Your task to perform on an android device: change notification settings in the gmail app Image 0: 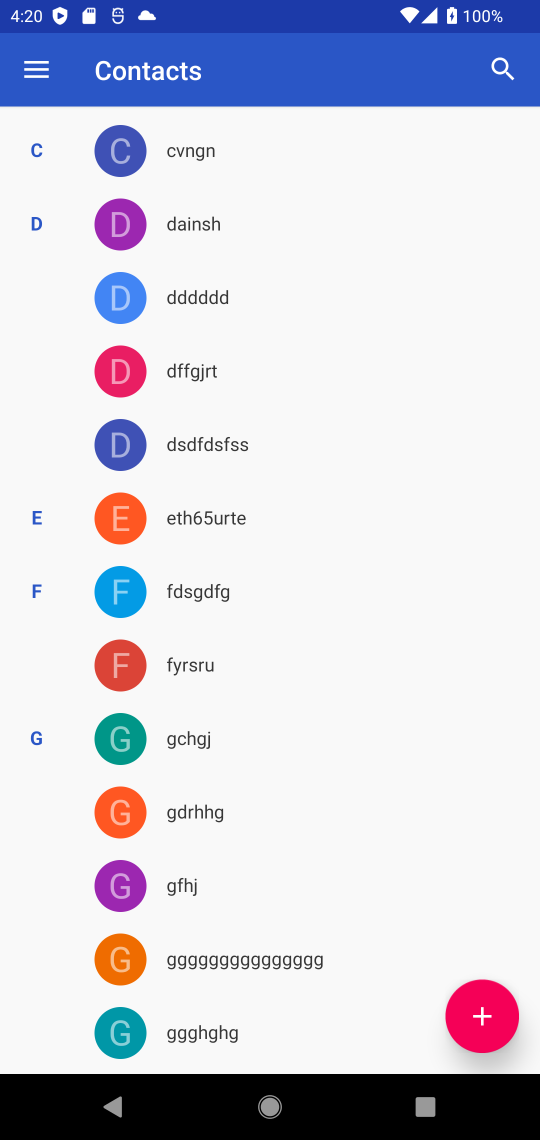
Step 0: press home button
Your task to perform on an android device: change notification settings in the gmail app Image 1: 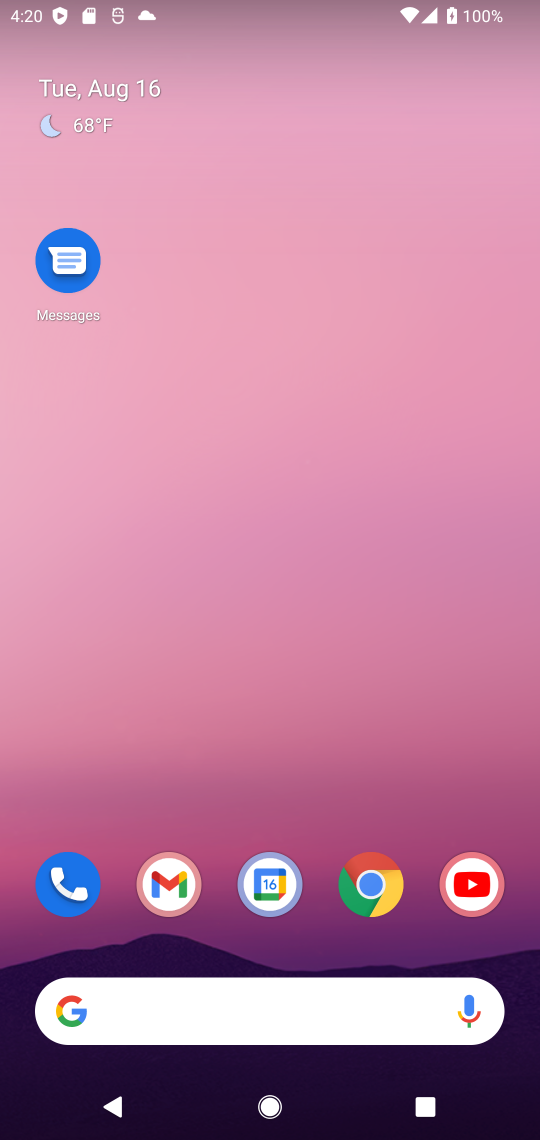
Step 1: click (156, 888)
Your task to perform on an android device: change notification settings in the gmail app Image 2: 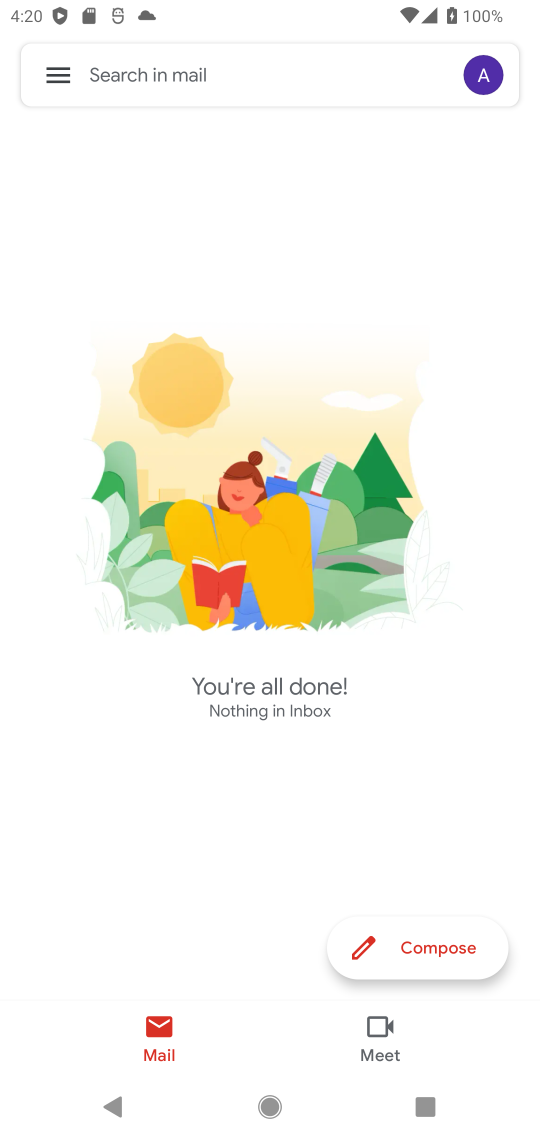
Step 2: click (43, 70)
Your task to perform on an android device: change notification settings in the gmail app Image 3: 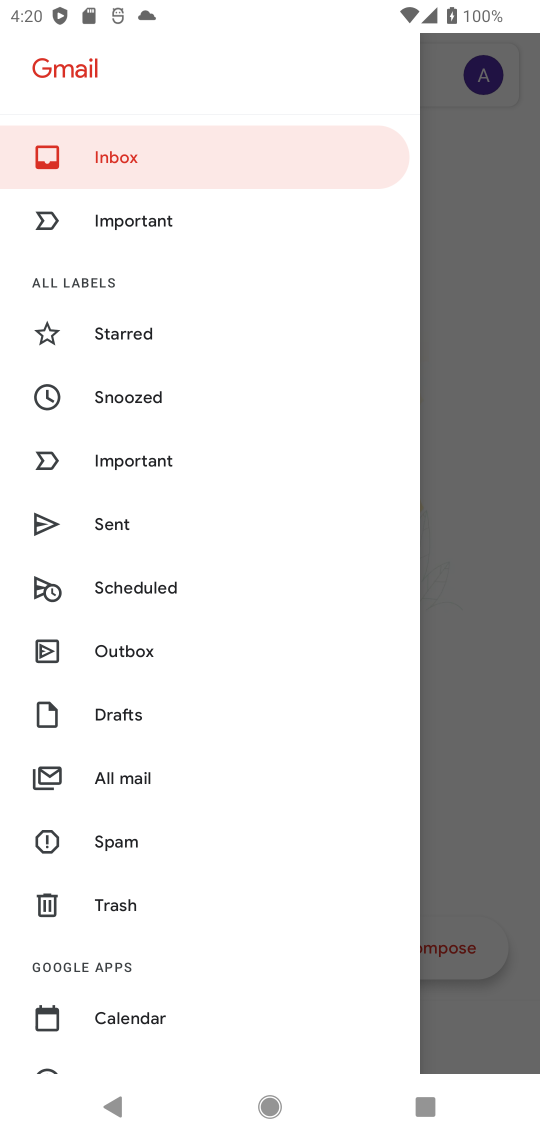
Step 3: drag from (230, 973) to (291, 544)
Your task to perform on an android device: change notification settings in the gmail app Image 4: 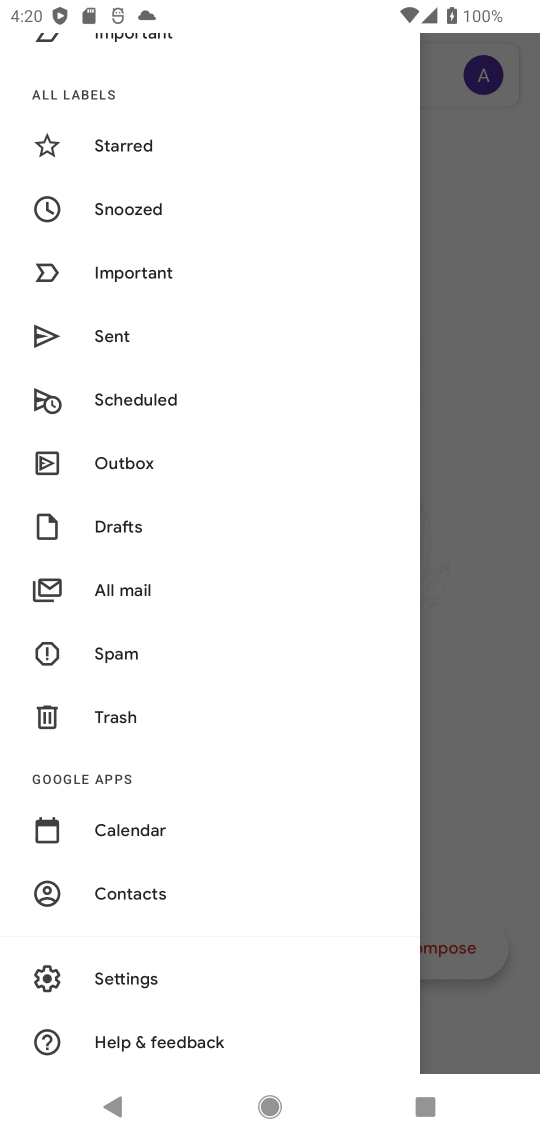
Step 4: click (123, 977)
Your task to perform on an android device: change notification settings in the gmail app Image 5: 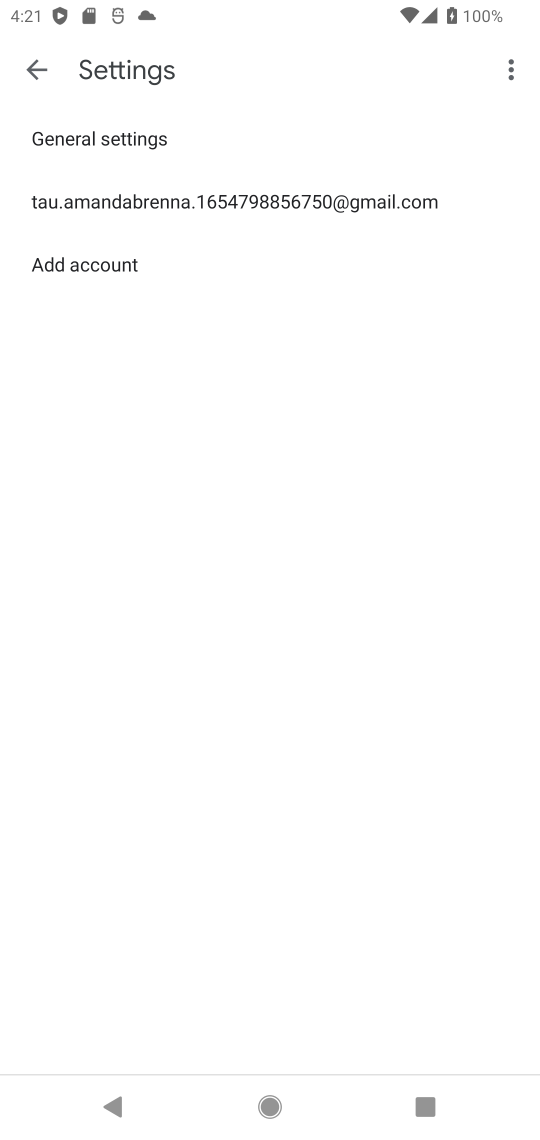
Step 5: click (214, 209)
Your task to perform on an android device: change notification settings in the gmail app Image 6: 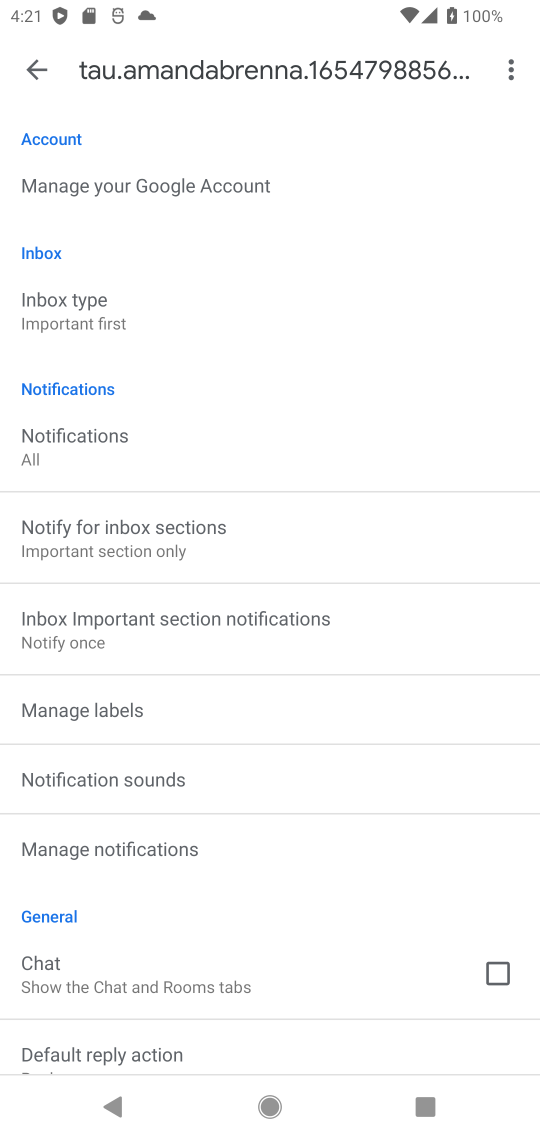
Step 6: click (106, 444)
Your task to perform on an android device: change notification settings in the gmail app Image 7: 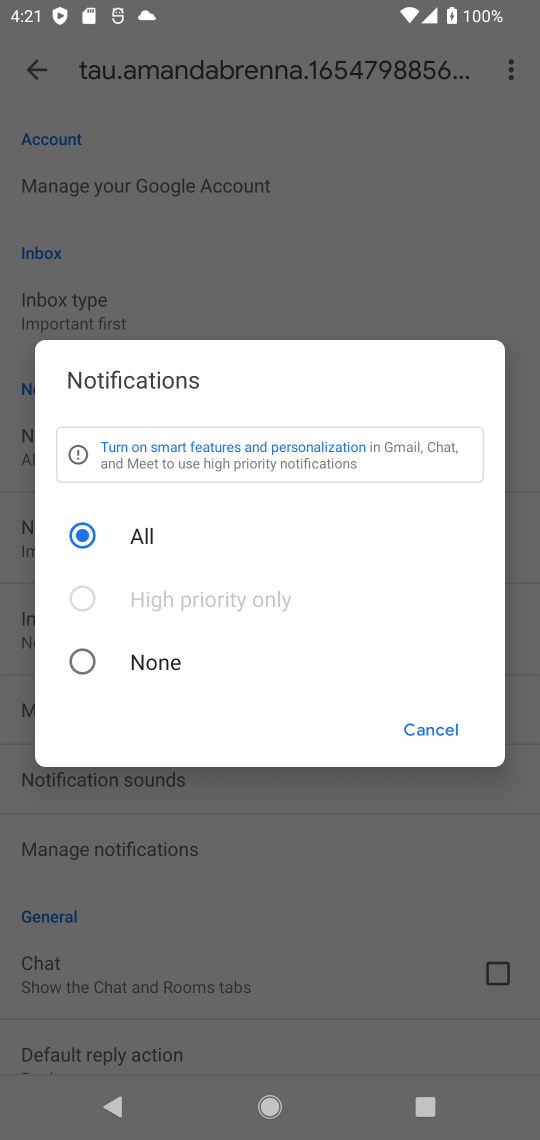
Step 7: task complete